Your task to perform on an android device: turn notification dots on Image 0: 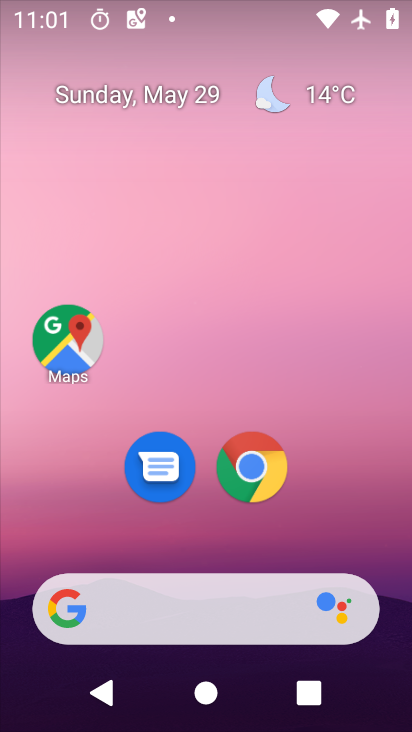
Step 0: drag from (209, 546) to (216, 87)
Your task to perform on an android device: turn notification dots on Image 1: 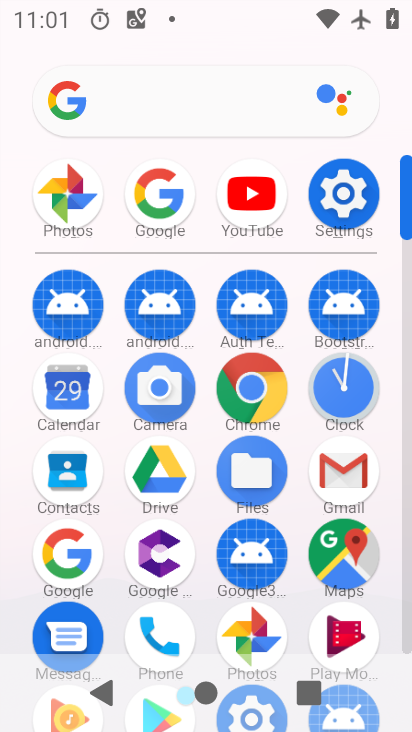
Step 1: click (335, 199)
Your task to perform on an android device: turn notification dots on Image 2: 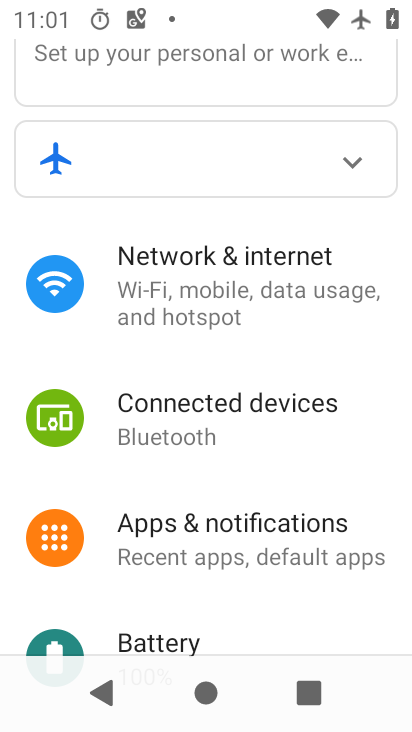
Step 2: click (229, 534)
Your task to perform on an android device: turn notification dots on Image 3: 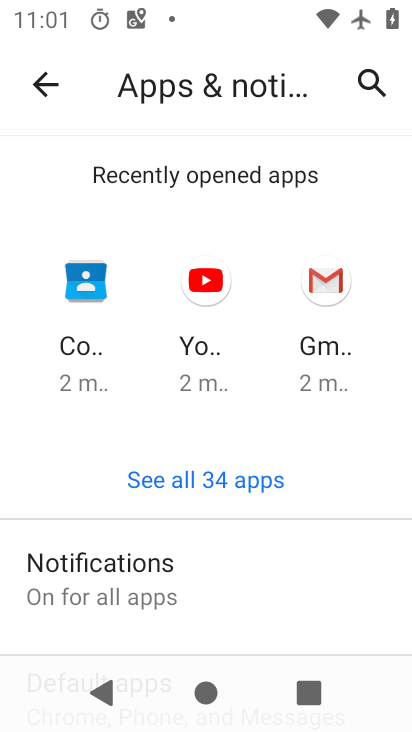
Step 3: click (200, 573)
Your task to perform on an android device: turn notification dots on Image 4: 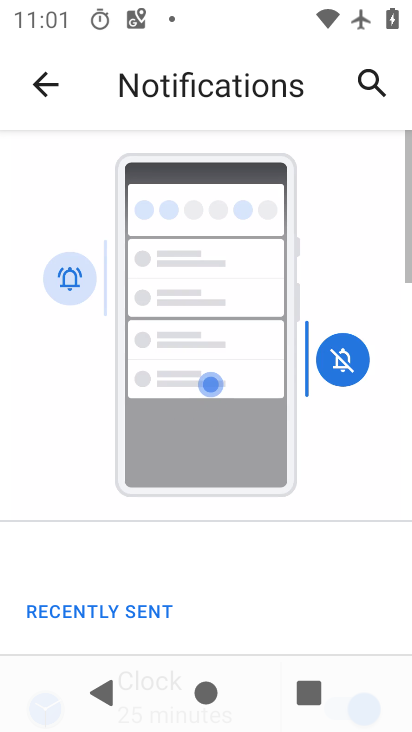
Step 4: drag from (238, 575) to (217, 228)
Your task to perform on an android device: turn notification dots on Image 5: 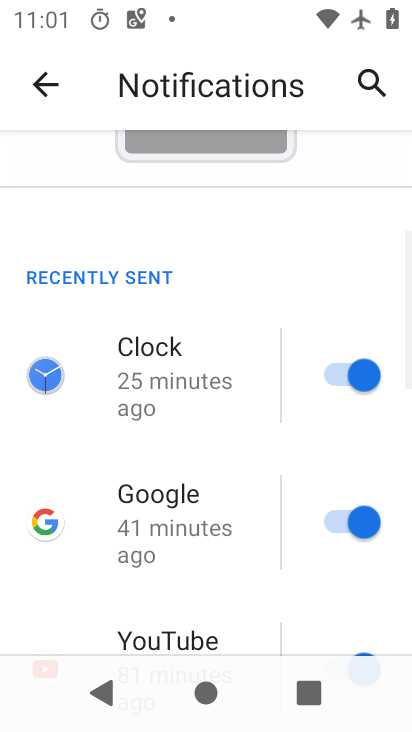
Step 5: drag from (232, 522) to (223, 270)
Your task to perform on an android device: turn notification dots on Image 6: 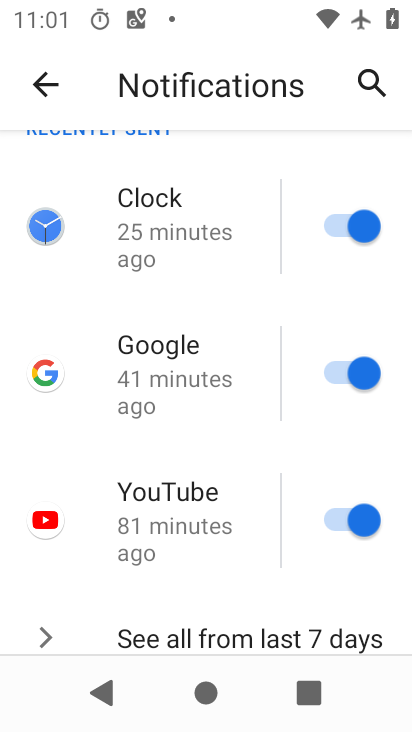
Step 6: drag from (233, 528) to (208, 258)
Your task to perform on an android device: turn notification dots on Image 7: 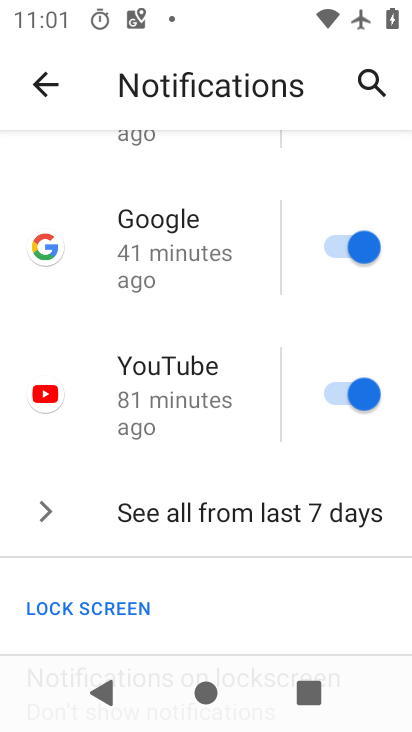
Step 7: drag from (203, 467) to (200, 261)
Your task to perform on an android device: turn notification dots on Image 8: 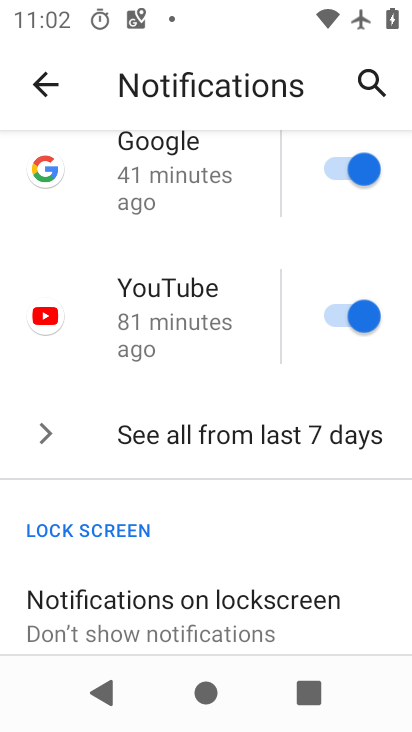
Step 8: drag from (207, 588) to (215, 244)
Your task to perform on an android device: turn notification dots on Image 9: 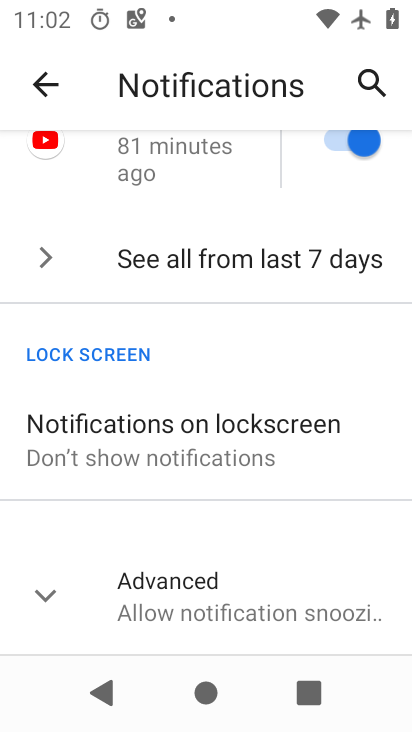
Step 9: click (193, 590)
Your task to perform on an android device: turn notification dots on Image 10: 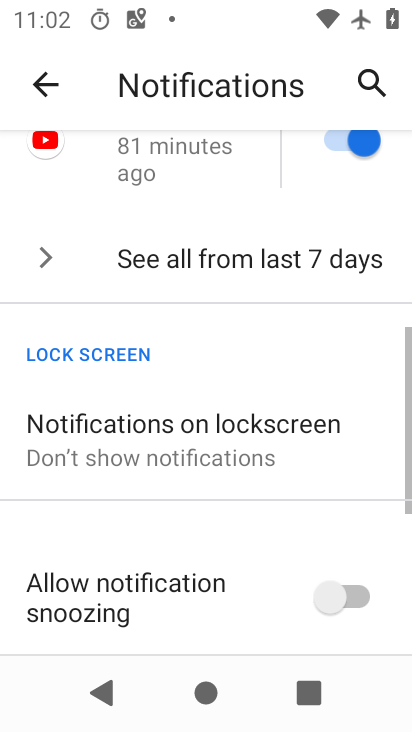
Step 10: task complete